Your task to perform on an android device: Open internet settings Image 0: 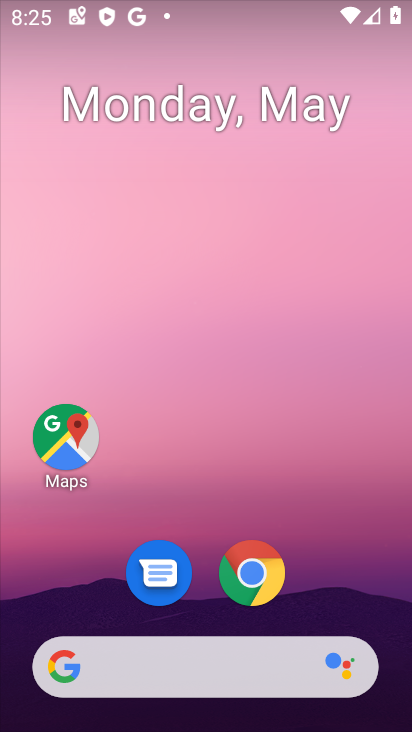
Step 0: drag from (220, 685) to (293, 197)
Your task to perform on an android device: Open internet settings Image 1: 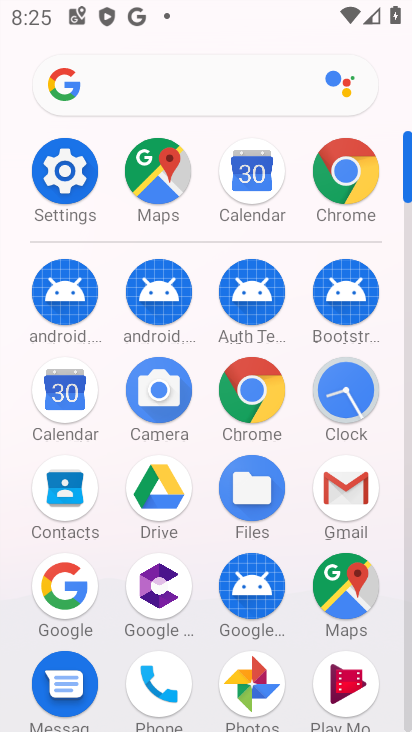
Step 1: click (69, 170)
Your task to perform on an android device: Open internet settings Image 2: 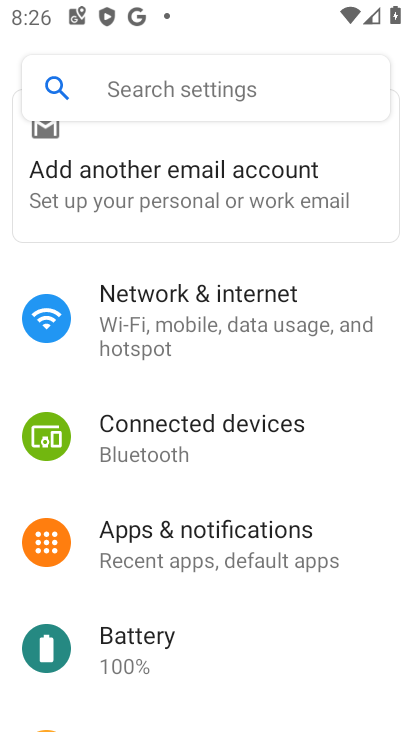
Step 2: click (223, 504)
Your task to perform on an android device: Open internet settings Image 3: 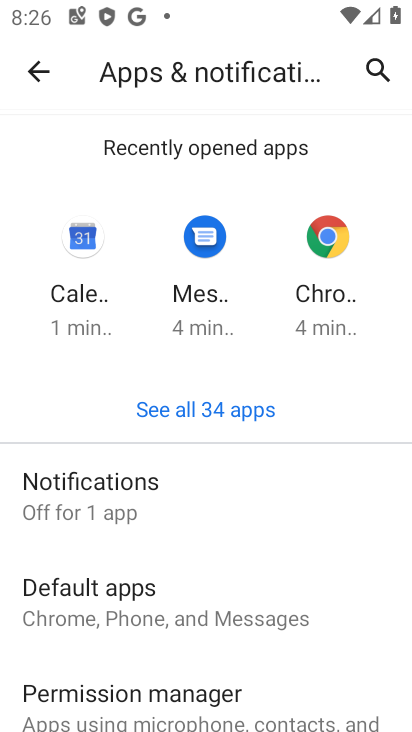
Step 3: task complete